Your task to perform on an android device: Open Google Maps and go to "Timeline" Image 0: 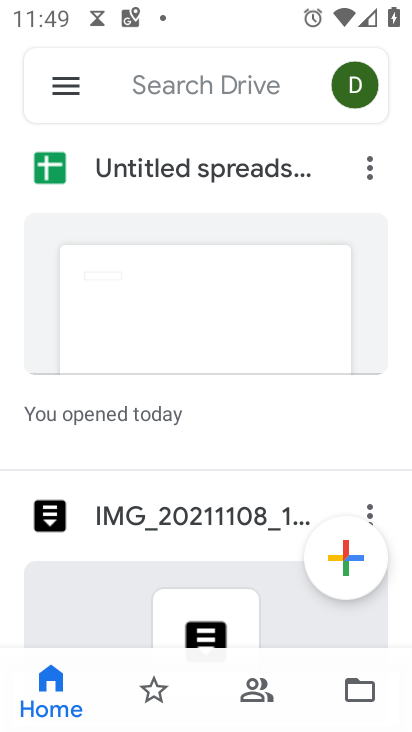
Step 0: press home button
Your task to perform on an android device: Open Google Maps and go to "Timeline" Image 1: 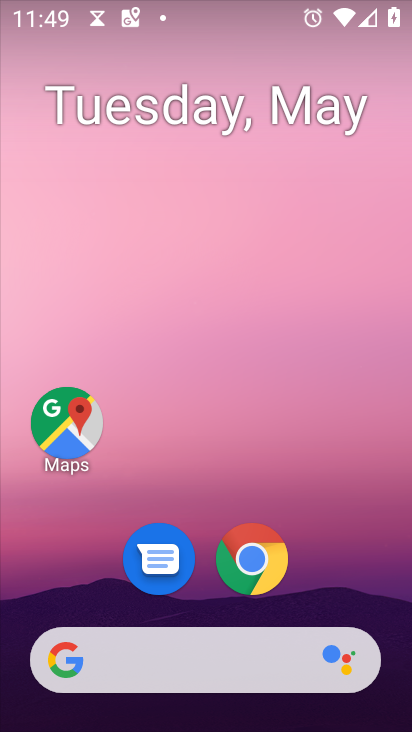
Step 1: drag from (347, 552) to (389, 107)
Your task to perform on an android device: Open Google Maps and go to "Timeline" Image 2: 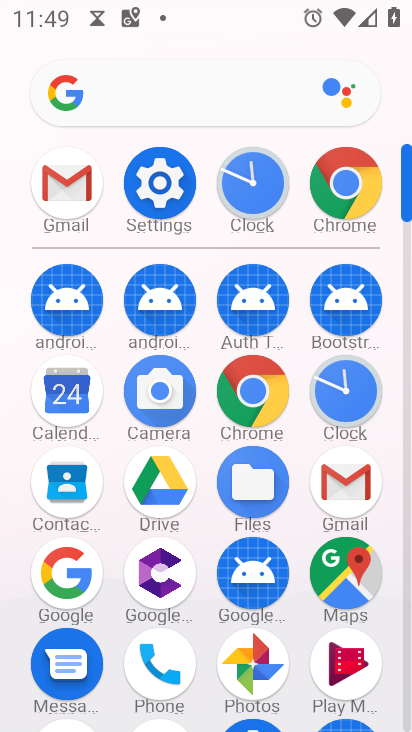
Step 2: click (337, 589)
Your task to perform on an android device: Open Google Maps and go to "Timeline" Image 3: 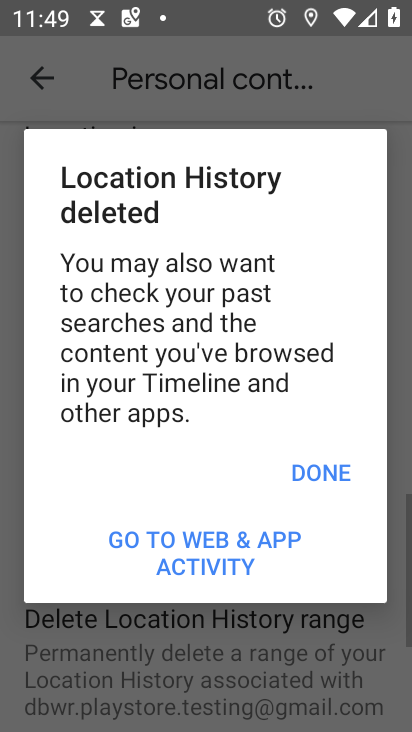
Step 3: press back button
Your task to perform on an android device: Open Google Maps and go to "Timeline" Image 4: 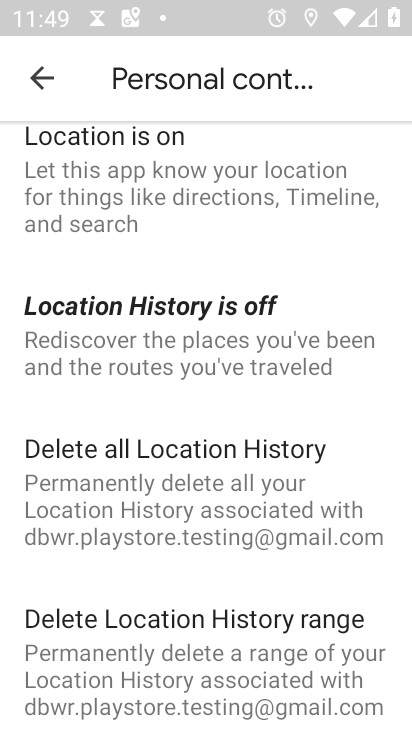
Step 4: click (34, 80)
Your task to perform on an android device: Open Google Maps and go to "Timeline" Image 5: 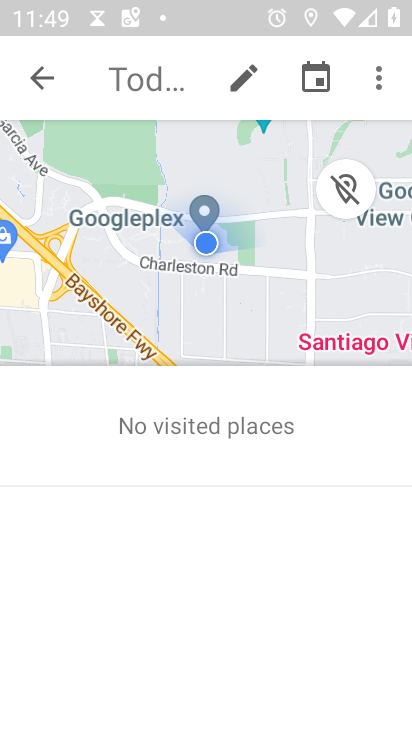
Step 5: click (33, 80)
Your task to perform on an android device: Open Google Maps and go to "Timeline" Image 6: 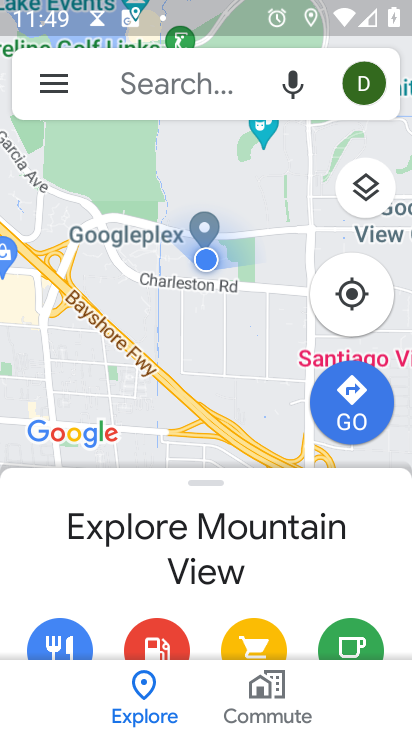
Step 6: click (33, 79)
Your task to perform on an android device: Open Google Maps and go to "Timeline" Image 7: 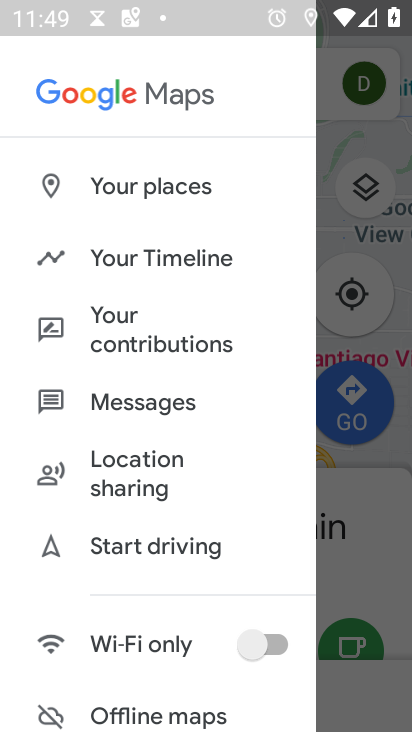
Step 7: click (142, 272)
Your task to perform on an android device: Open Google Maps and go to "Timeline" Image 8: 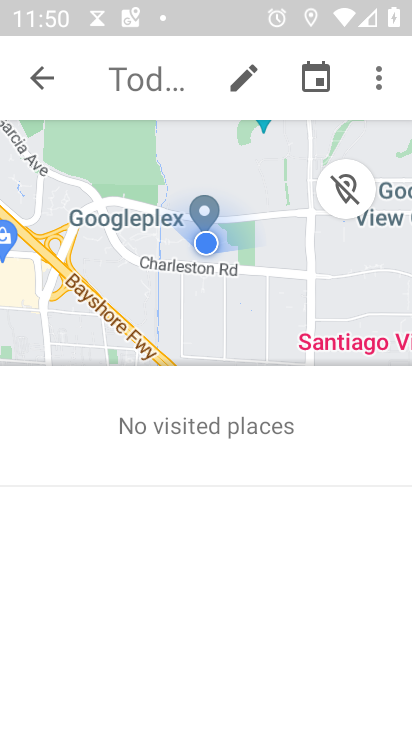
Step 8: task complete